Your task to perform on an android device: Play the last video I watched on Youtube Image 0: 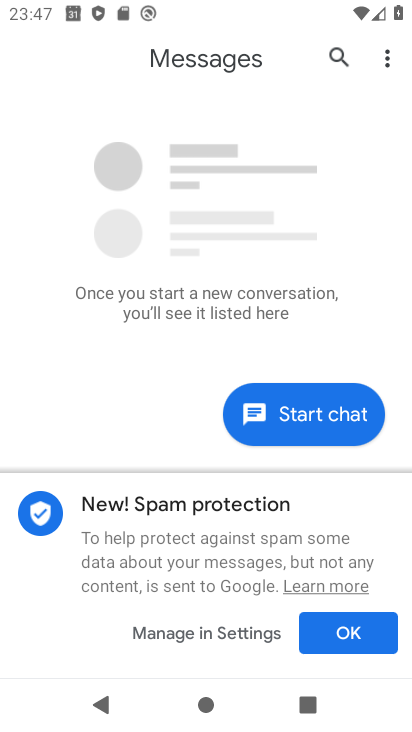
Step 0: press home button
Your task to perform on an android device: Play the last video I watched on Youtube Image 1: 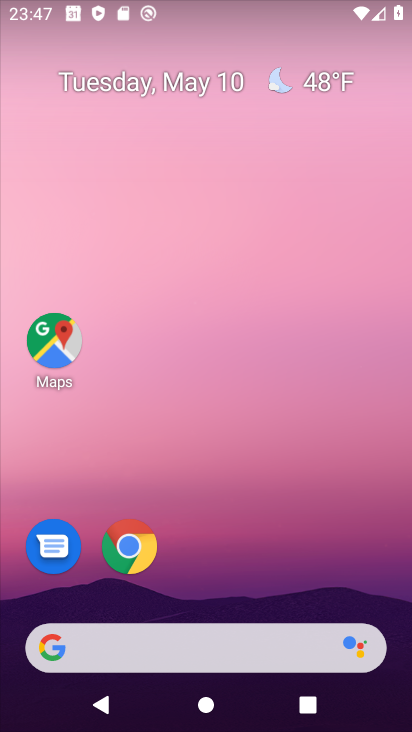
Step 1: drag from (212, 568) to (228, 204)
Your task to perform on an android device: Play the last video I watched on Youtube Image 2: 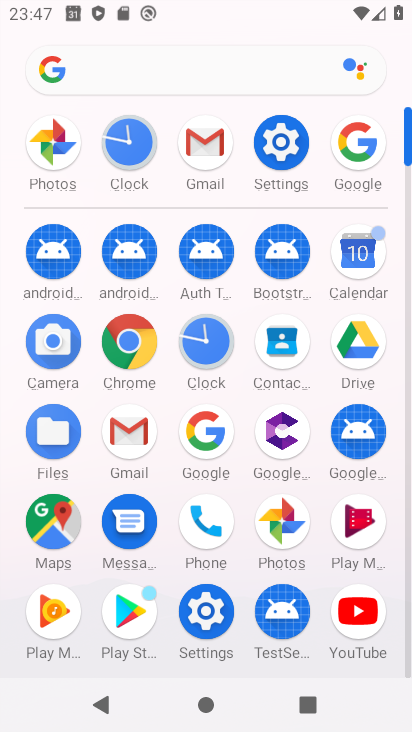
Step 2: drag from (262, 537) to (273, 264)
Your task to perform on an android device: Play the last video I watched on Youtube Image 3: 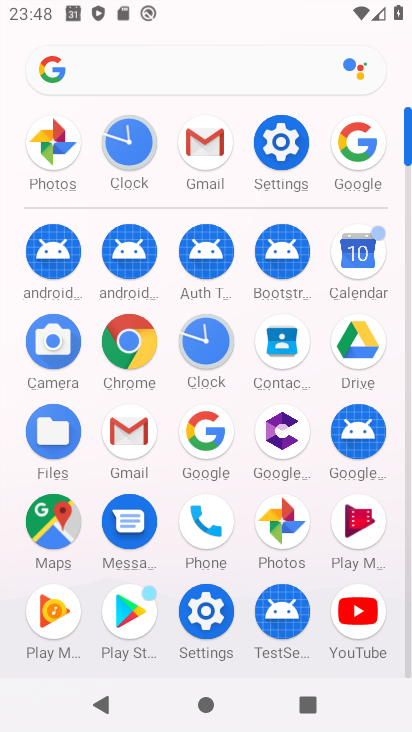
Step 3: click (356, 578)
Your task to perform on an android device: Play the last video I watched on Youtube Image 4: 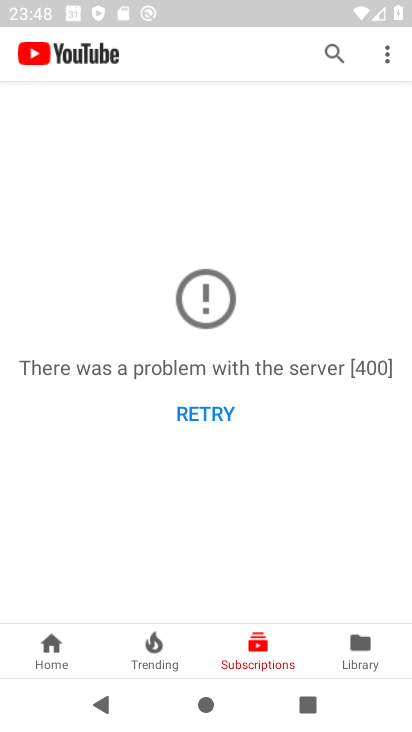
Step 4: click (382, 69)
Your task to perform on an android device: Play the last video I watched on Youtube Image 5: 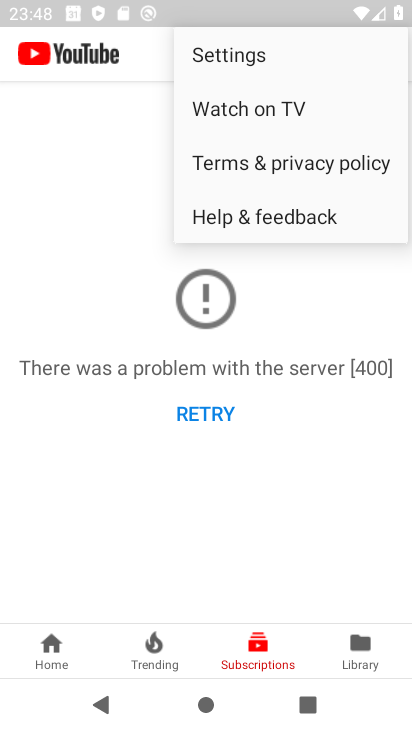
Step 5: click (290, 414)
Your task to perform on an android device: Play the last video I watched on Youtube Image 6: 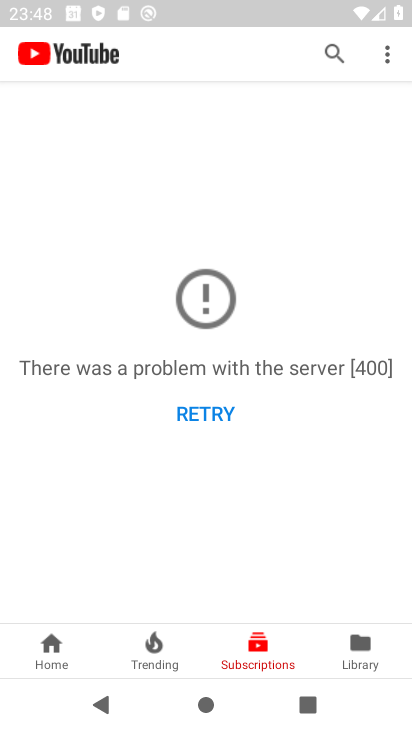
Step 6: click (361, 622)
Your task to perform on an android device: Play the last video I watched on Youtube Image 7: 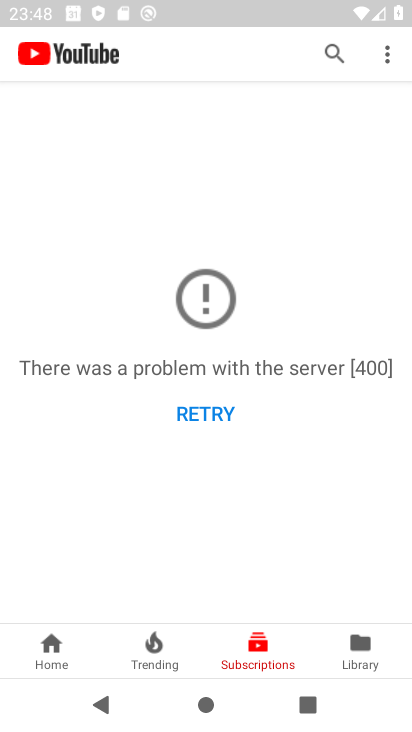
Step 7: click (362, 655)
Your task to perform on an android device: Play the last video I watched on Youtube Image 8: 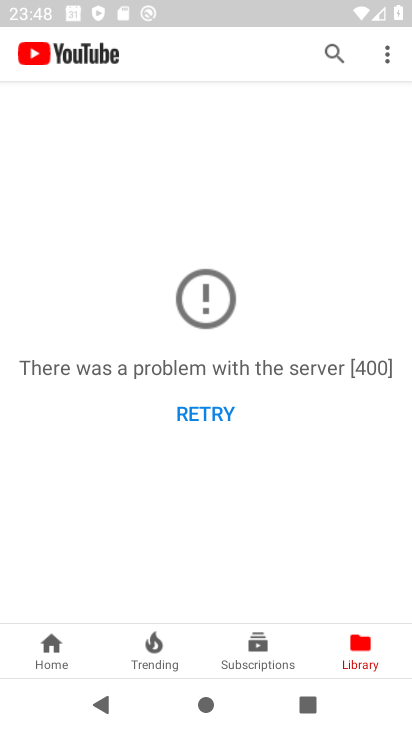
Step 8: click (345, 648)
Your task to perform on an android device: Play the last video I watched on Youtube Image 9: 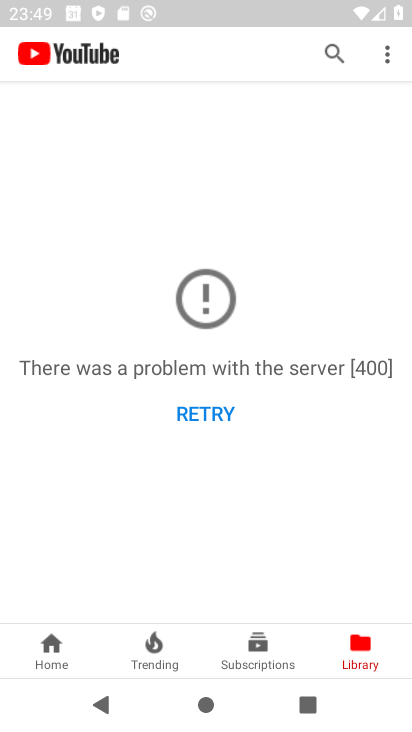
Step 9: click (200, 414)
Your task to perform on an android device: Play the last video I watched on Youtube Image 10: 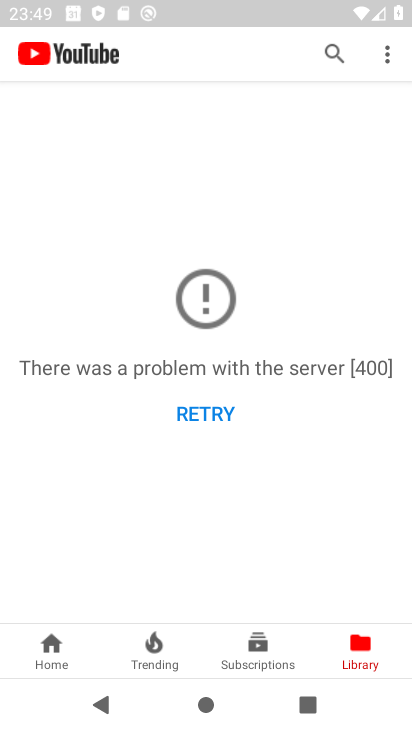
Step 10: task complete